Your task to perform on an android device: Show me popular videos on Youtube Image 0: 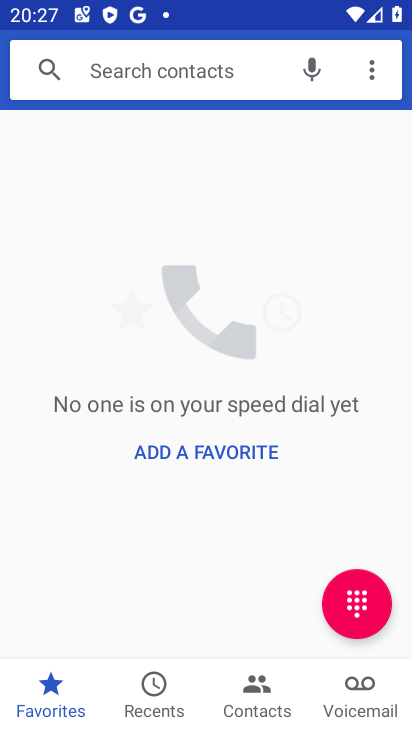
Step 0: press home button
Your task to perform on an android device: Show me popular videos on Youtube Image 1: 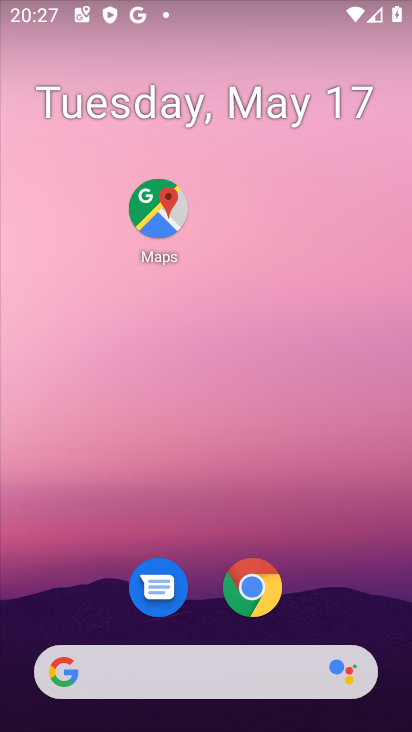
Step 1: drag from (91, 494) to (317, 118)
Your task to perform on an android device: Show me popular videos on Youtube Image 2: 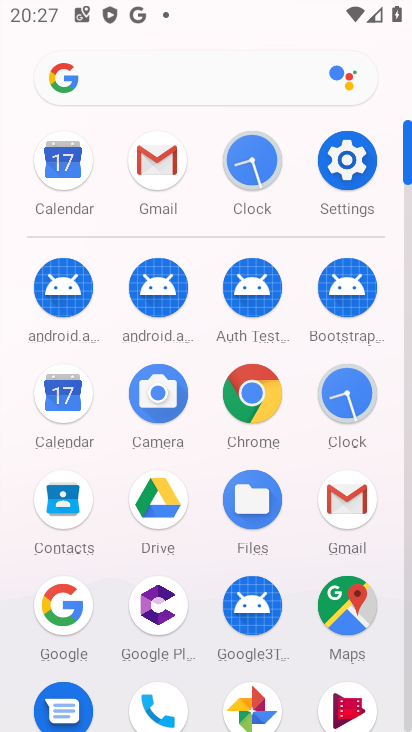
Step 2: drag from (39, 581) to (281, 160)
Your task to perform on an android device: Show me popular videos on Youtube Image 3: 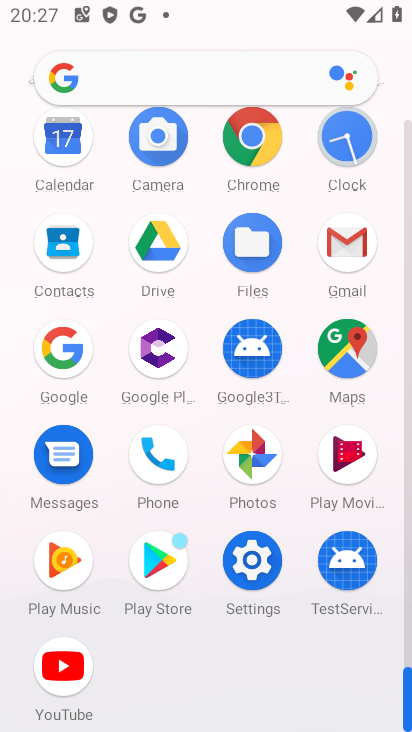
Step 3: click (53, 673)
Your task to perform on an android device: Show me popular videos on Youtube Image 4: 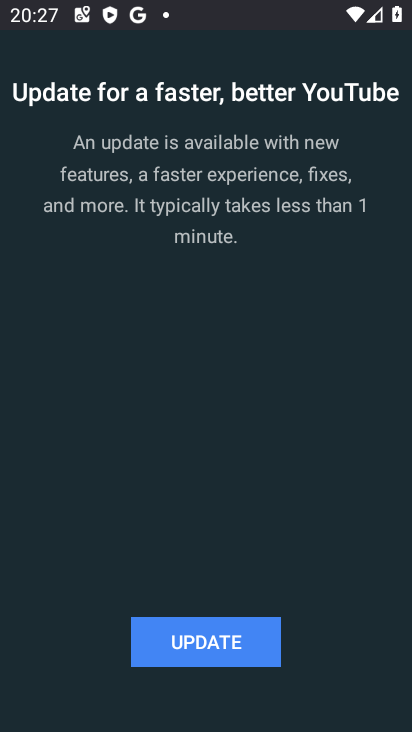
Step 4: task complete